Your task to perform on an android device: move a message to another label in the gmail app Image 0: 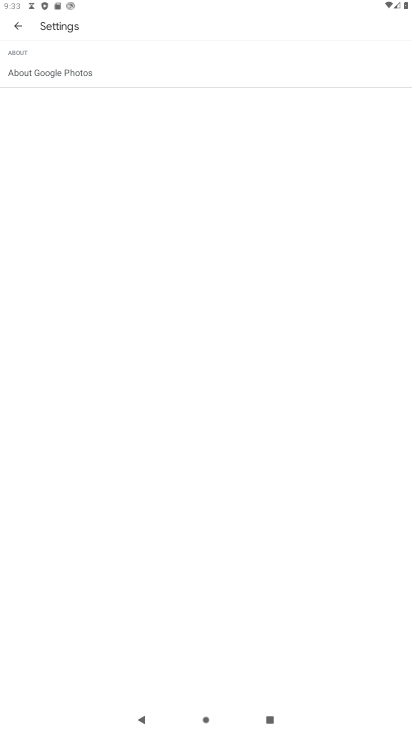
Step 0: press home button
Your task to perform on an android device: move a message to another label in the gmail app Image 1: 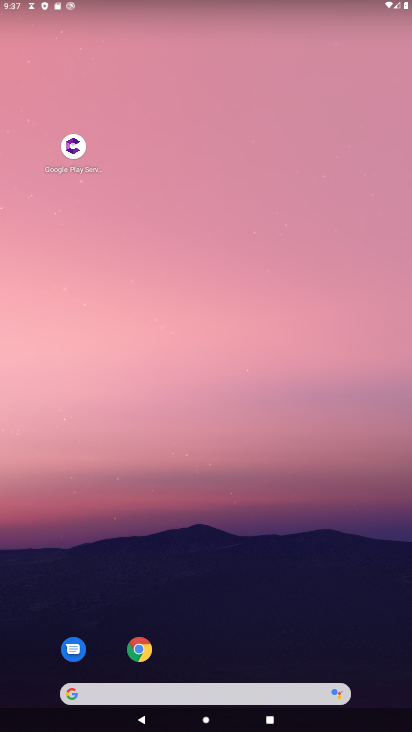
Step 1: drag from (252, 691) to (186, 100)
Your task to perform on an android device: move a message to another label in the gmail app Image 2: 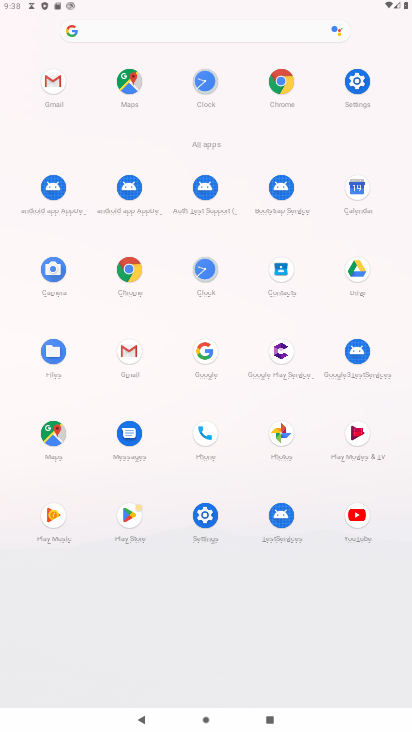
Step 2: click (129, 358)
Your task to perform on an android device: move a message to another label in the gmail app Image 3: 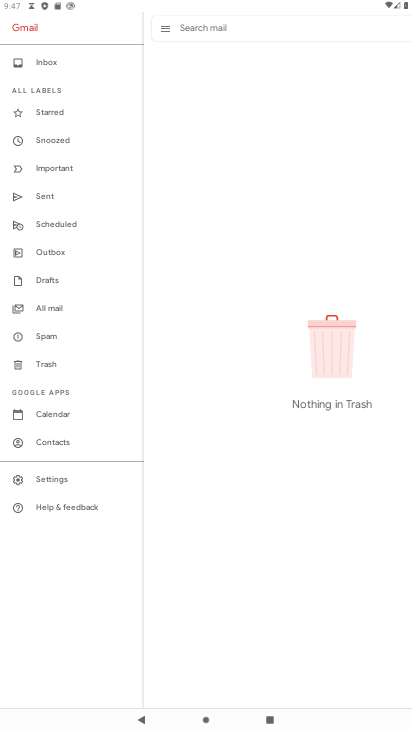
Step 3: click (24, 60)
Your task to perform on an android device: move a message to another label in the gmail app Image 4: 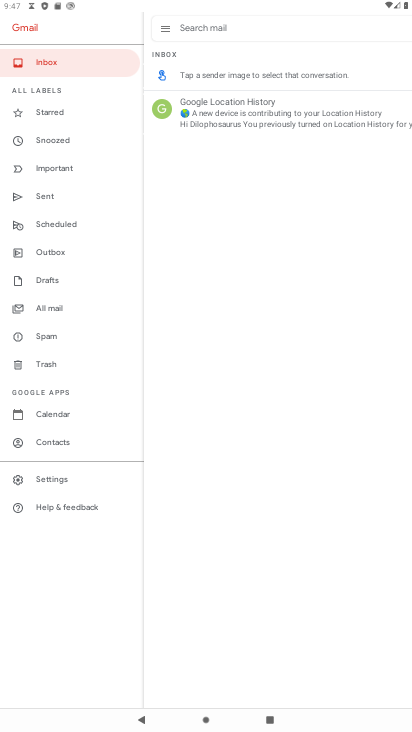
Step 4: click (205, 106)
Your task to perform on an android device: move a message to another label in the gmail app Image 5: 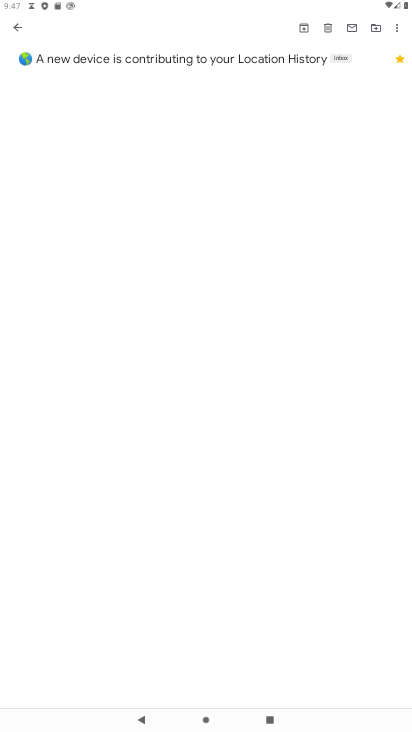
Step 5: click (395, 30)
Your task to perform on an android device: move a message to another label in the gmail app Image 6: 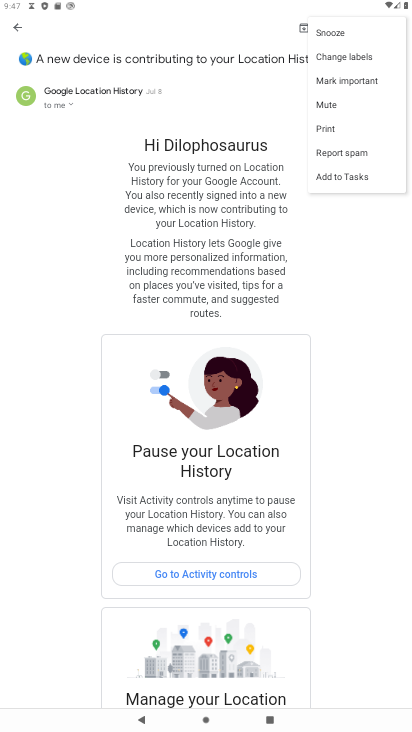
Step 6: click (350, 59)
Your task to perform on an android device: move a message to another label in the gmail app Image 7: 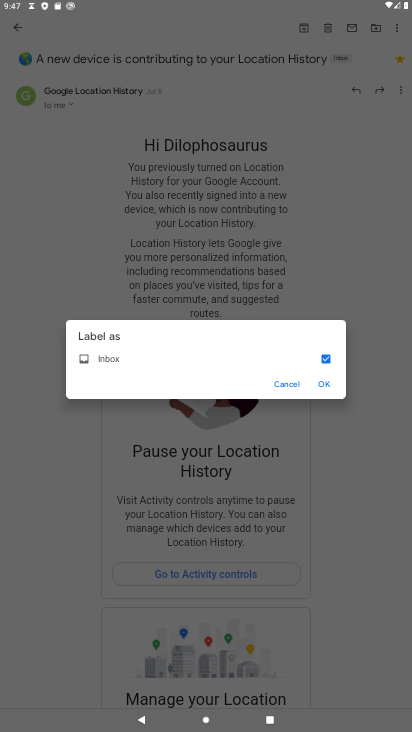
Step 7: click (324, 384)
Your task to perform on an android device: move a message to another label in the gmail app Image 8: 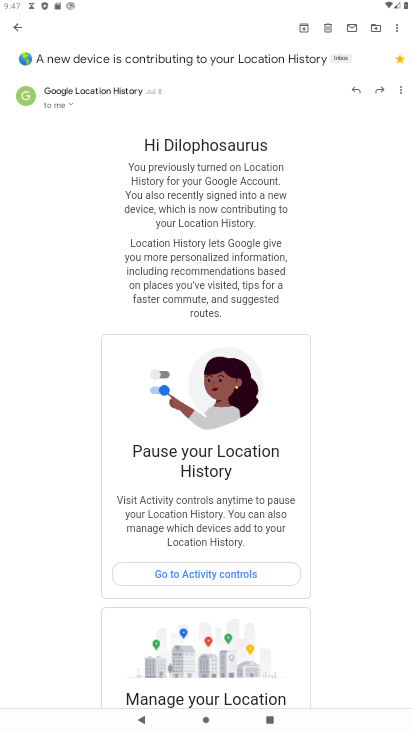
Step 8: task complete